Your task to perform on an android device: Is it going to rain this weekend? Image 0: 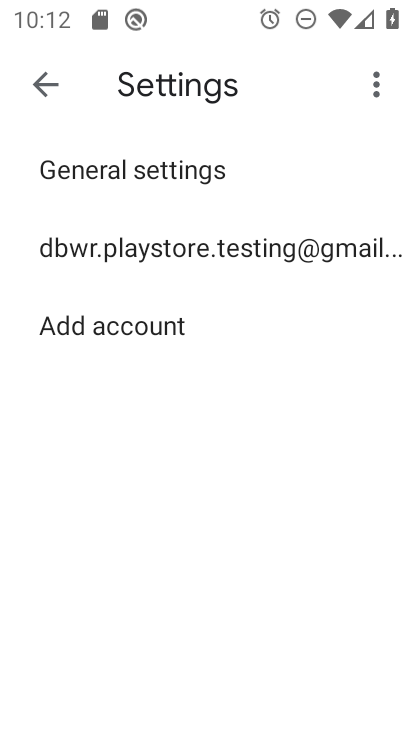
Step 0: press home button
Your task to perform on an android device: Is it going to rain this weekend? Image 1: 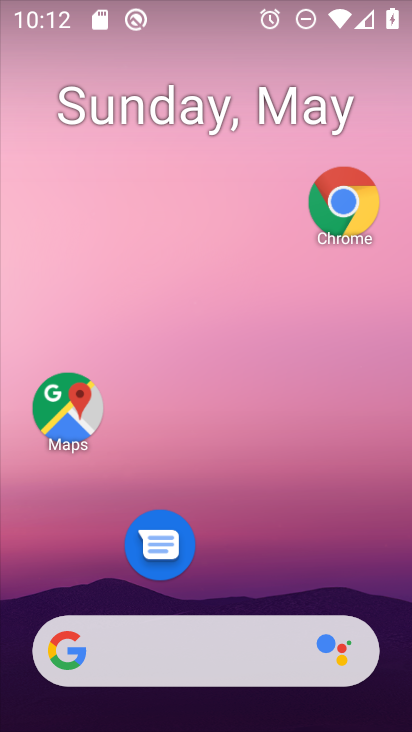
Step 1: click (207, 642)
Your task to perform on an android device: Is it going to rain this weekend? Image 2: 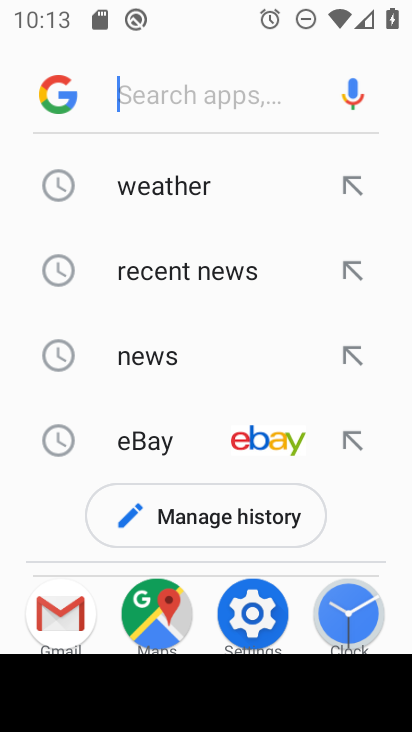
Step 2: type "is it going to rain this weekend"
Your task to perform on an android device: Is it going to rain this weekend? Image 3: 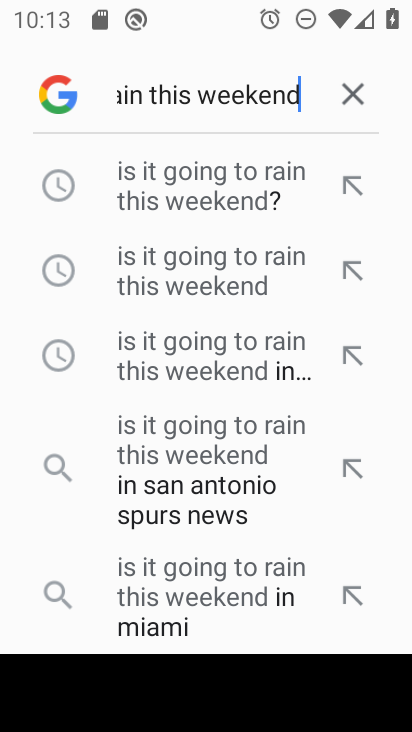
Step 3: click (194, 197)
Your task to perform on an android device: Is it going to rain this weekend? Image 4: 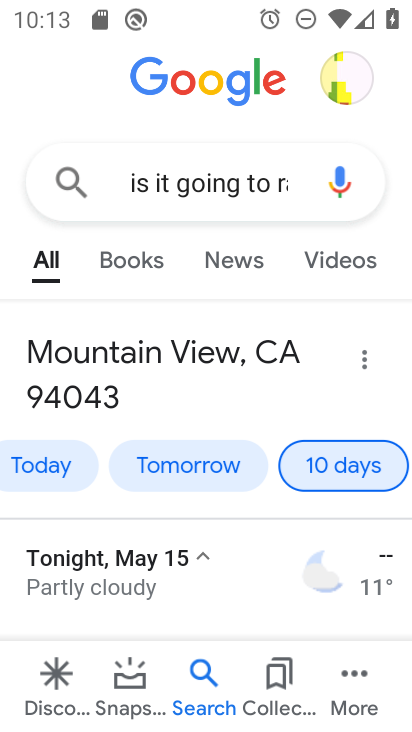
Step 4: drag from (257, 573) to (275, 307)
Your task to perform on an android device: Is it going to rain this weekend? Image 5: 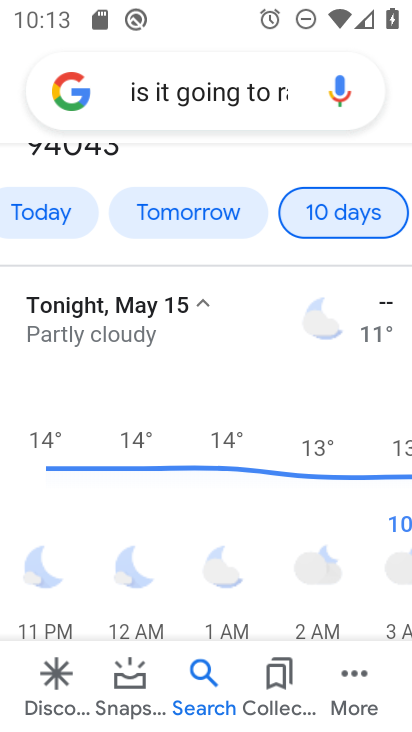
Step 5: drag from (205, 595) to (211, 319)
Your task to perform on an android device: Is it going to rain this weekend? Image 6: 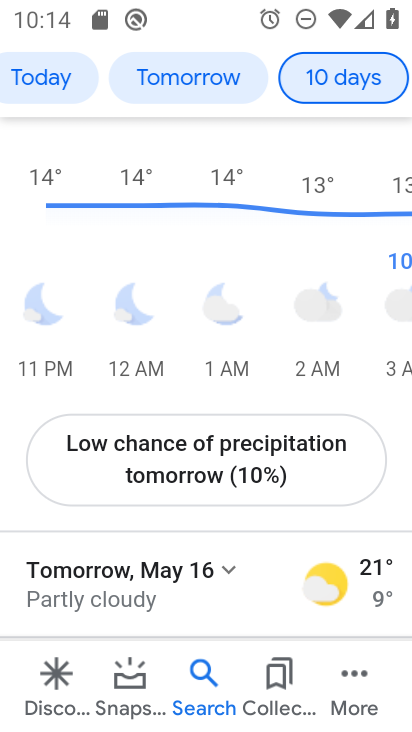
Step 6: drag from (178, 591) to (142, 303)
Your task to perform on an android device: Is it going to rain this weekend? Image 7: 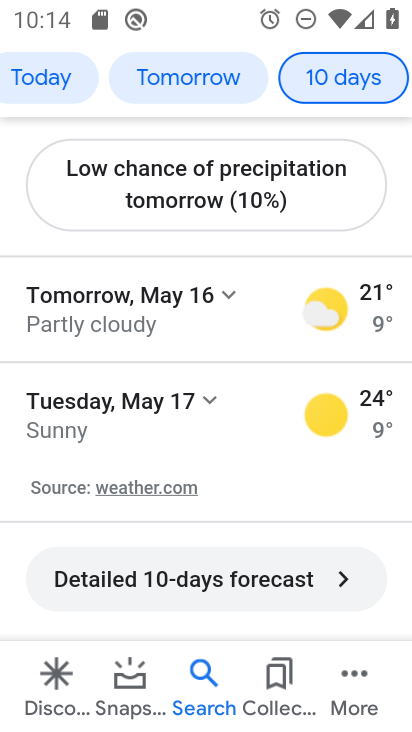
Step 7: click (335, 89)
Your task to perform on an android device: Is it going to rain this weekend? Image 8: 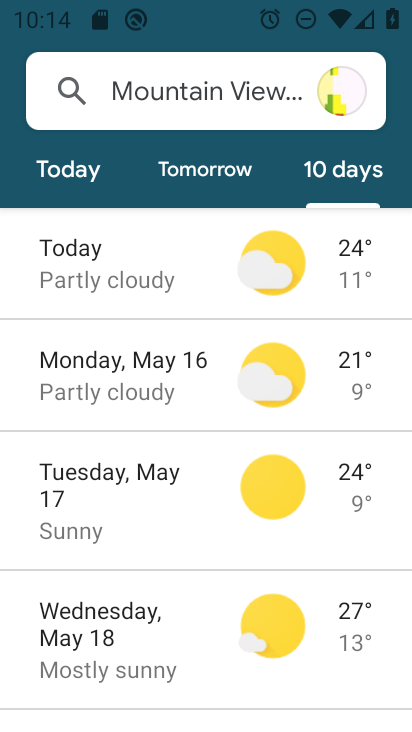
Step 8: task complete